Your task to perform on an android device: change the clock display to analog Image 0: 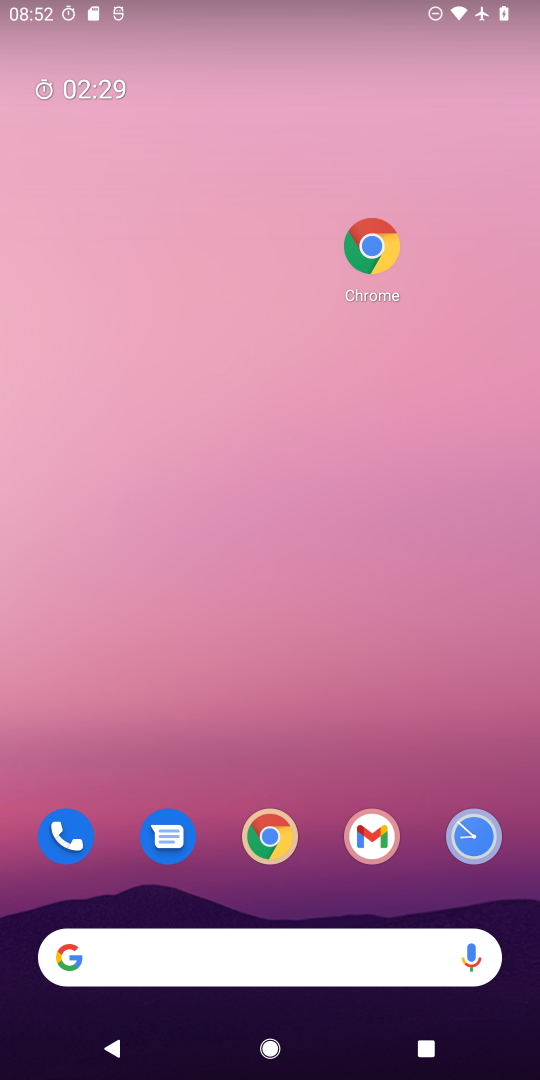
Step 0: drag from (282, 876) to (334, 305)
Your task to perform on an android device: change the clock display to analog Image 1: 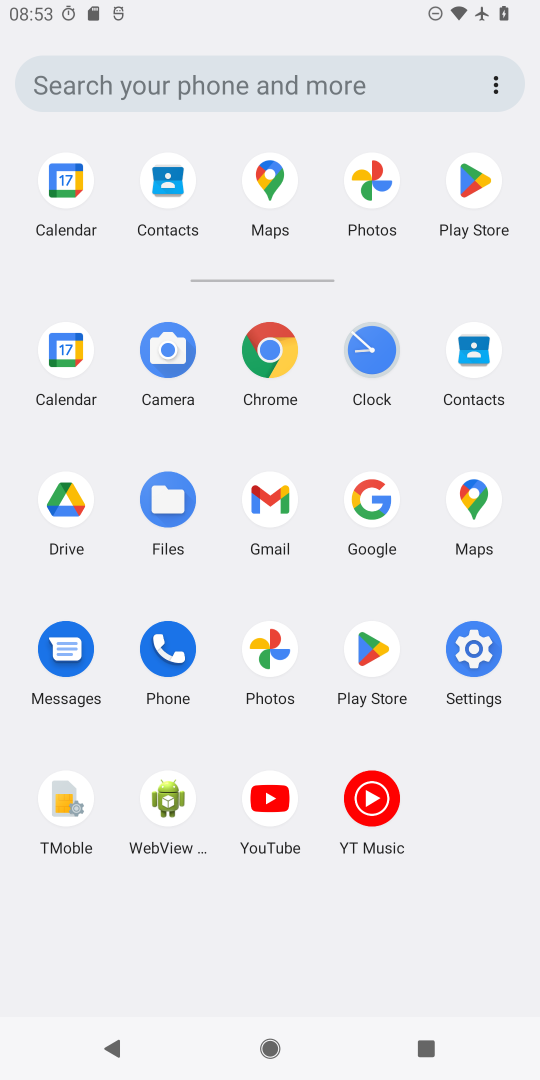
Step 1: click (367, 353)
Your task to perform on an android device: change the clock display to analog Image 2: 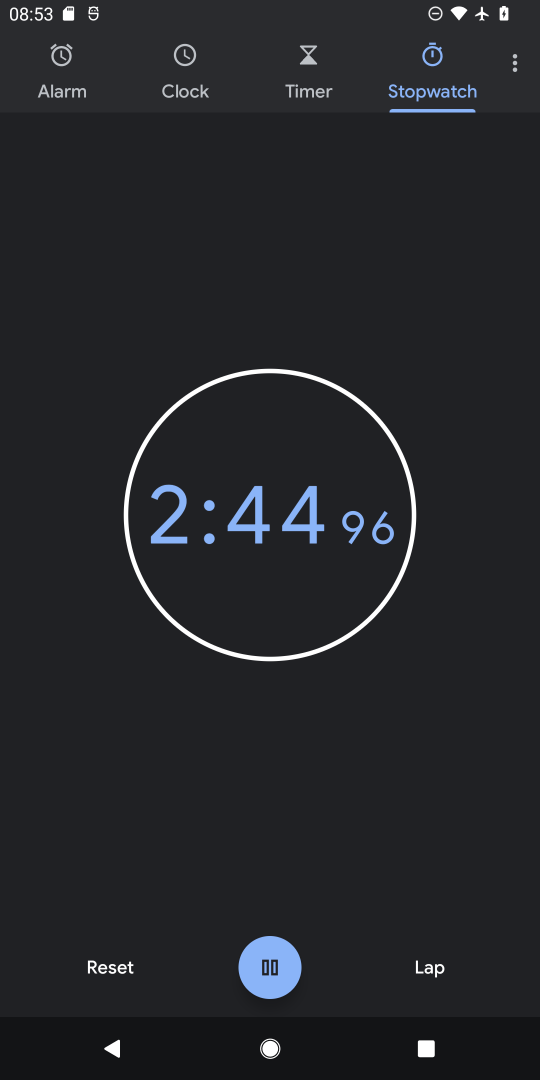
Step 2: click (500, 68)
Your task to perform on an android device: change the clock display to analog Image 3: 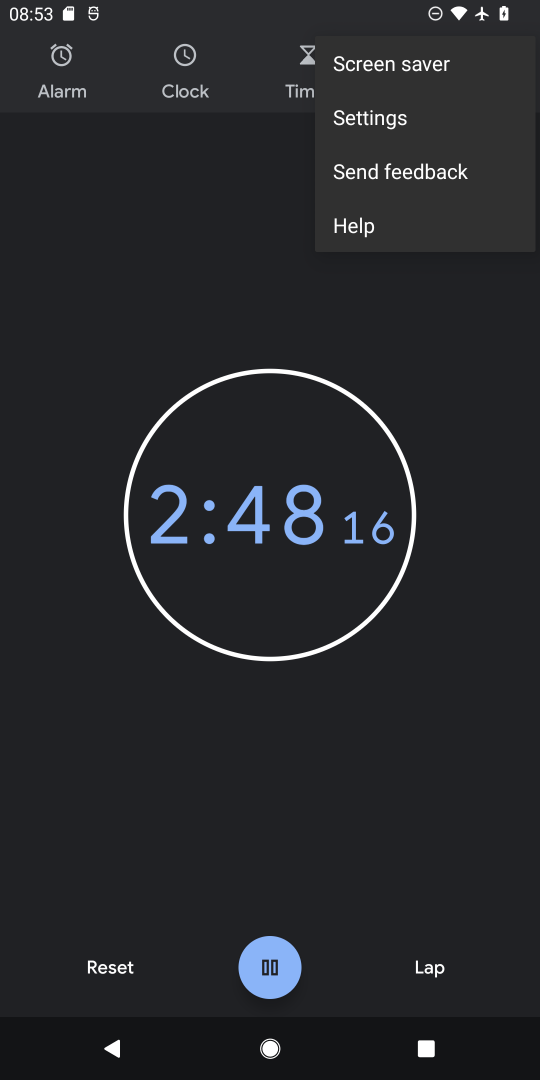
Step 3: click (431, 100)
Your task to perform on an android device: change the clock display to analog Image 4: 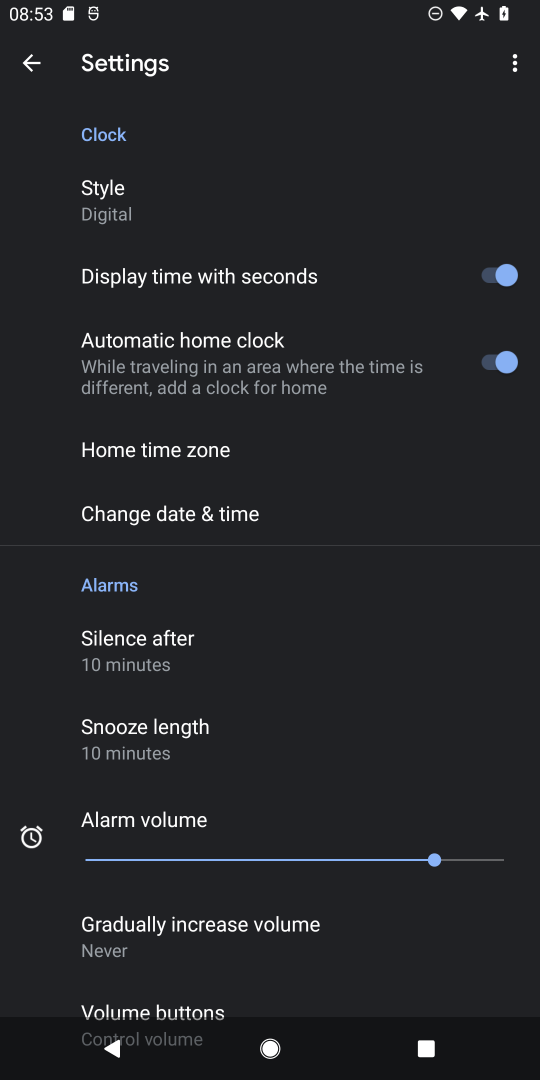
Step 4: click (141, 208)
Your task to perform on an android device: change the clock display to analog Image 5: 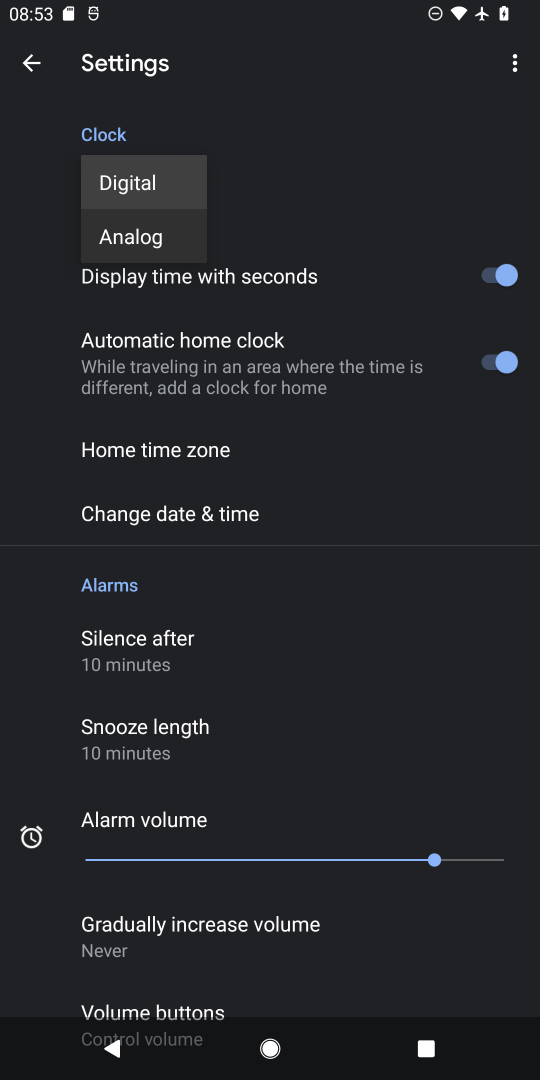
Step 5: click (143, 251)
Your task to perform on an android device: change the clock display to analog Image 6: 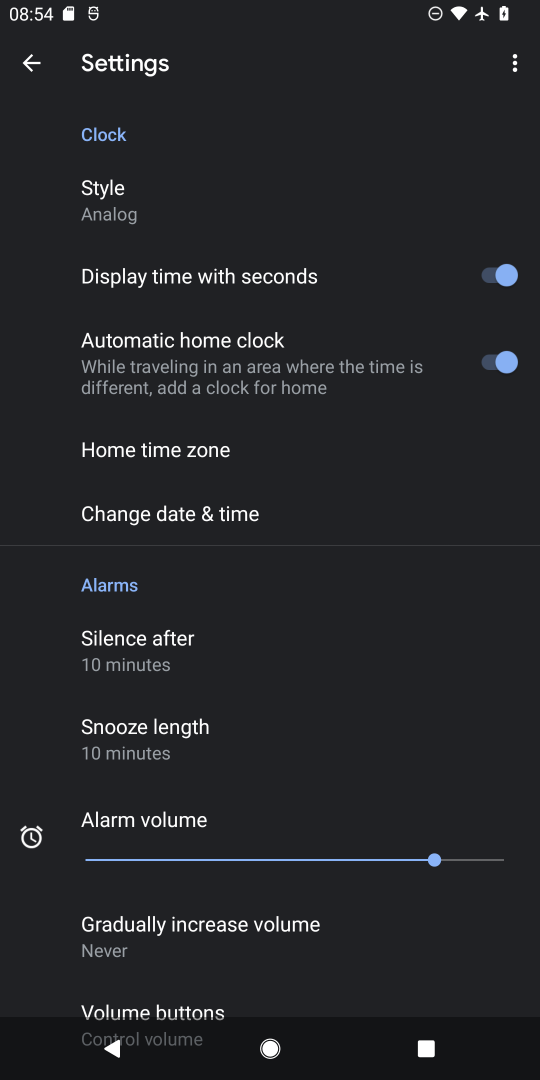
Step 6: task complete